Your task to perform on an android device: Is it going to rain this weekend? Image 0: 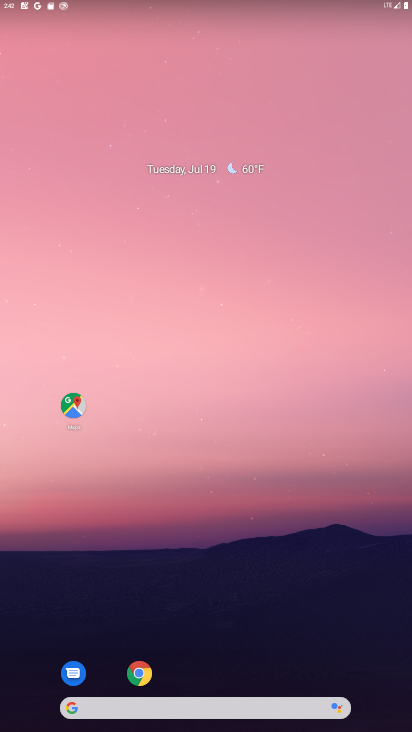
Step 0: click (140, 715)
Your task to perform on an android device: Is it going to rain this weekend? Image 1: 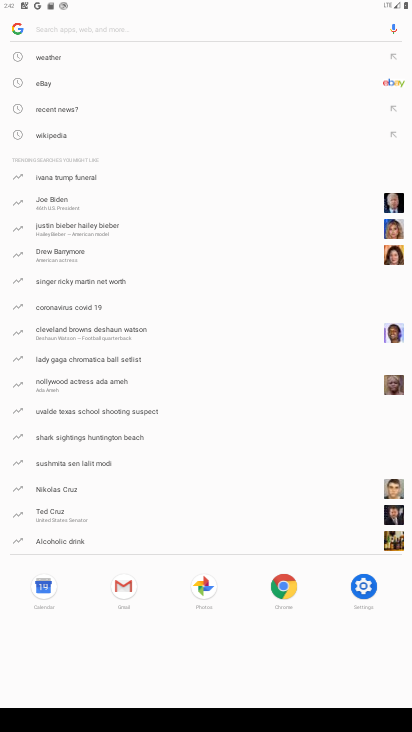
Step 1: drag from (146, 720) to (86, 715)
Your task to perform on an android device: Is it going to rain this weekend? Image 2: 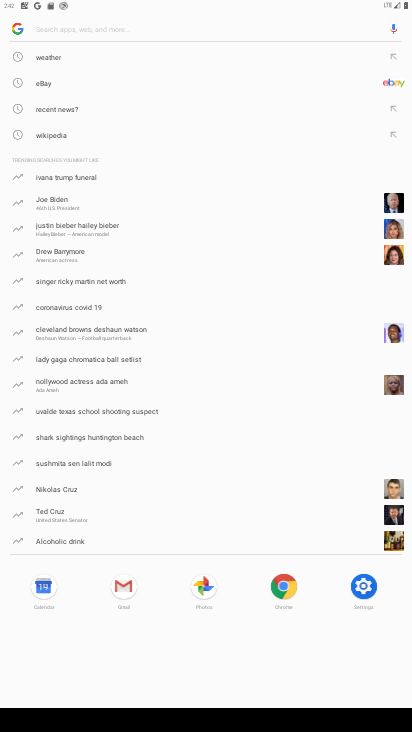
Step 2: type " Is it going to rain this weekend?"
Your task to perform on an android device: Is it going to rain this weekend? Image 3: 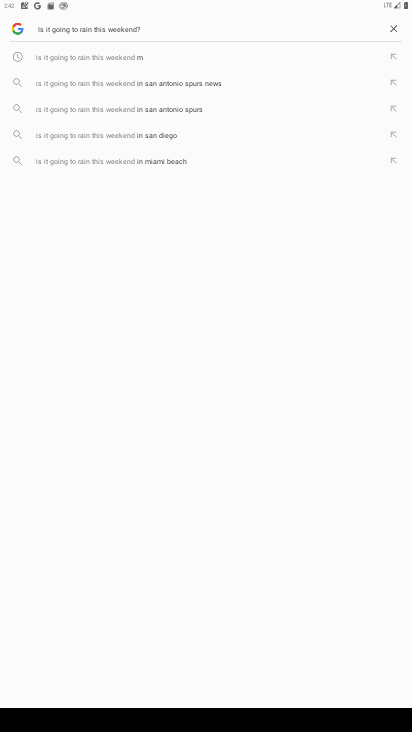
Step 3: press enter
Your task to perform on an android device: Is it going to rain this weekend? Image 4: 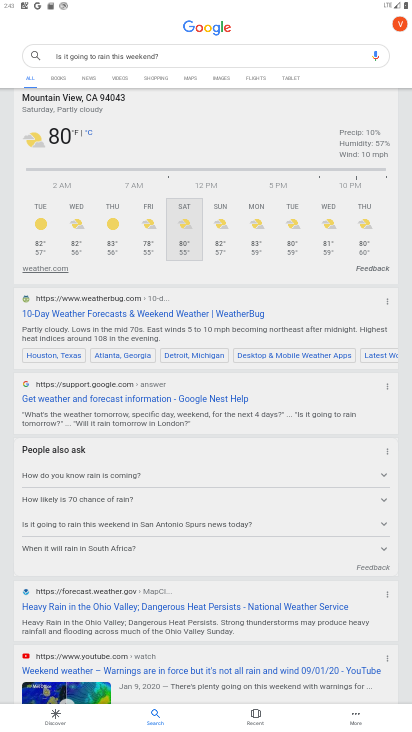
Step 4: task complete